Your task to perform on an android device: set default search engine in the chrome app Image 0: 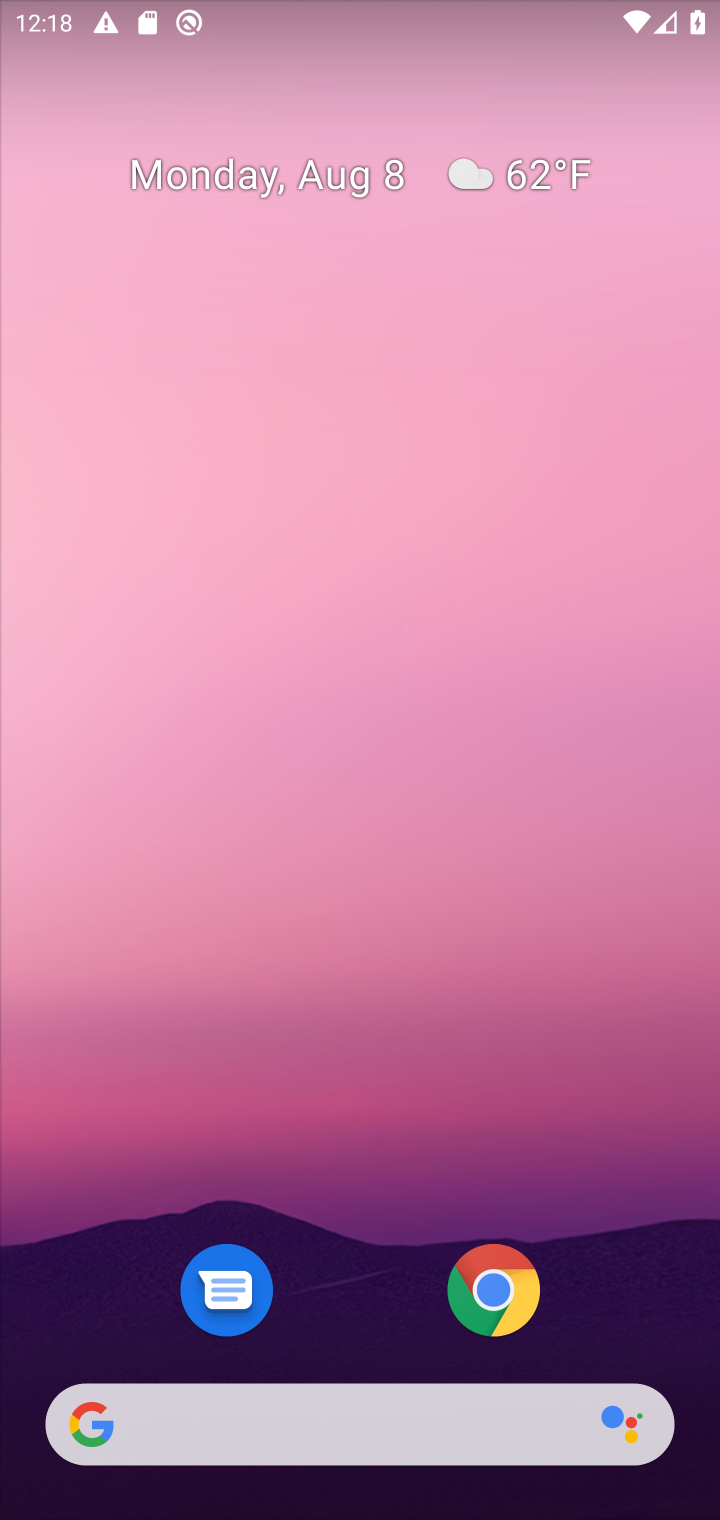
Step 0: drag from (352, 1340) to (348, 683)
Your task to perform on an android device: set default search engine in the chrome app Image 1: 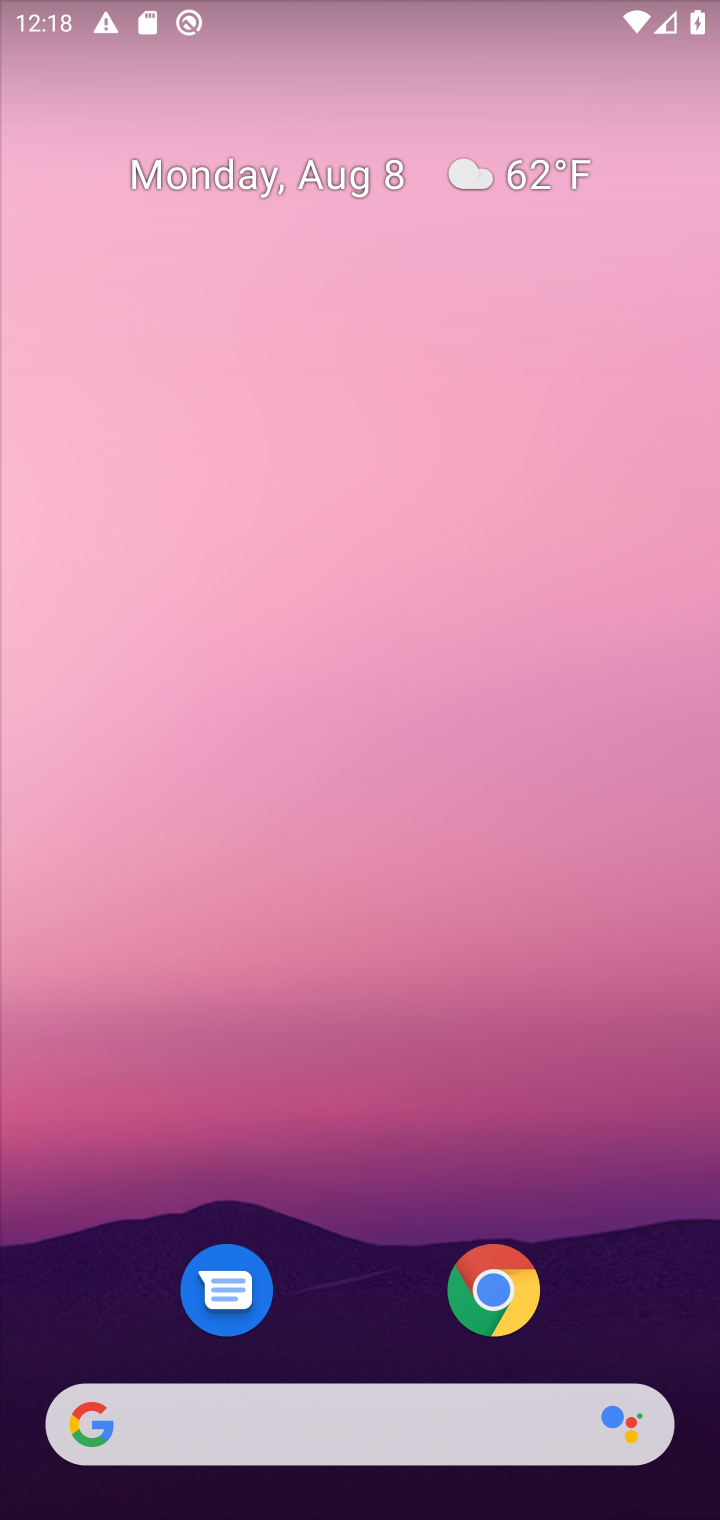
Step 1: drag from (384, 1293) to (396, 221)
Your task to perform on an android device: set default search engine in the chrome app Image 2: 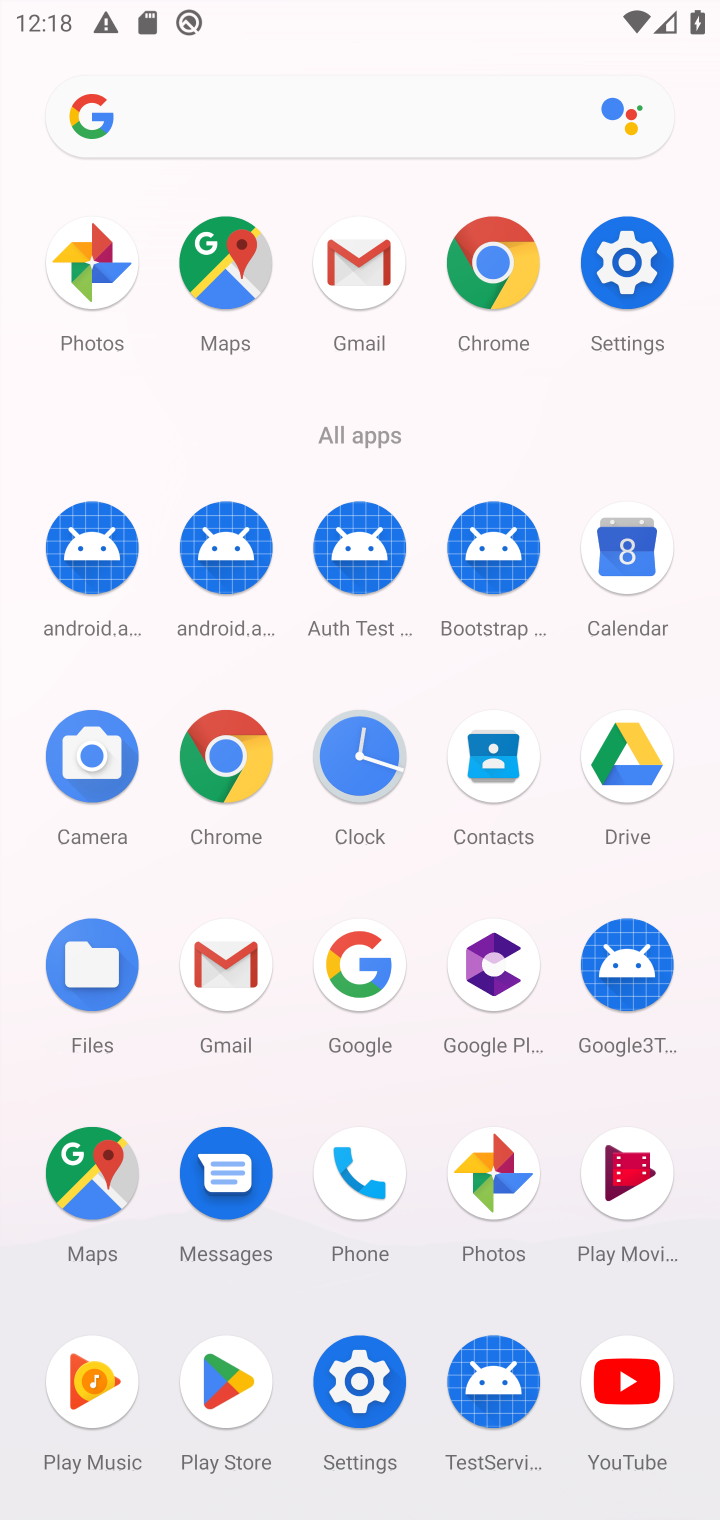
Step 2: click (239, 836)
Your task to perform on an android device: set default search engine in the chrome app Image 3: 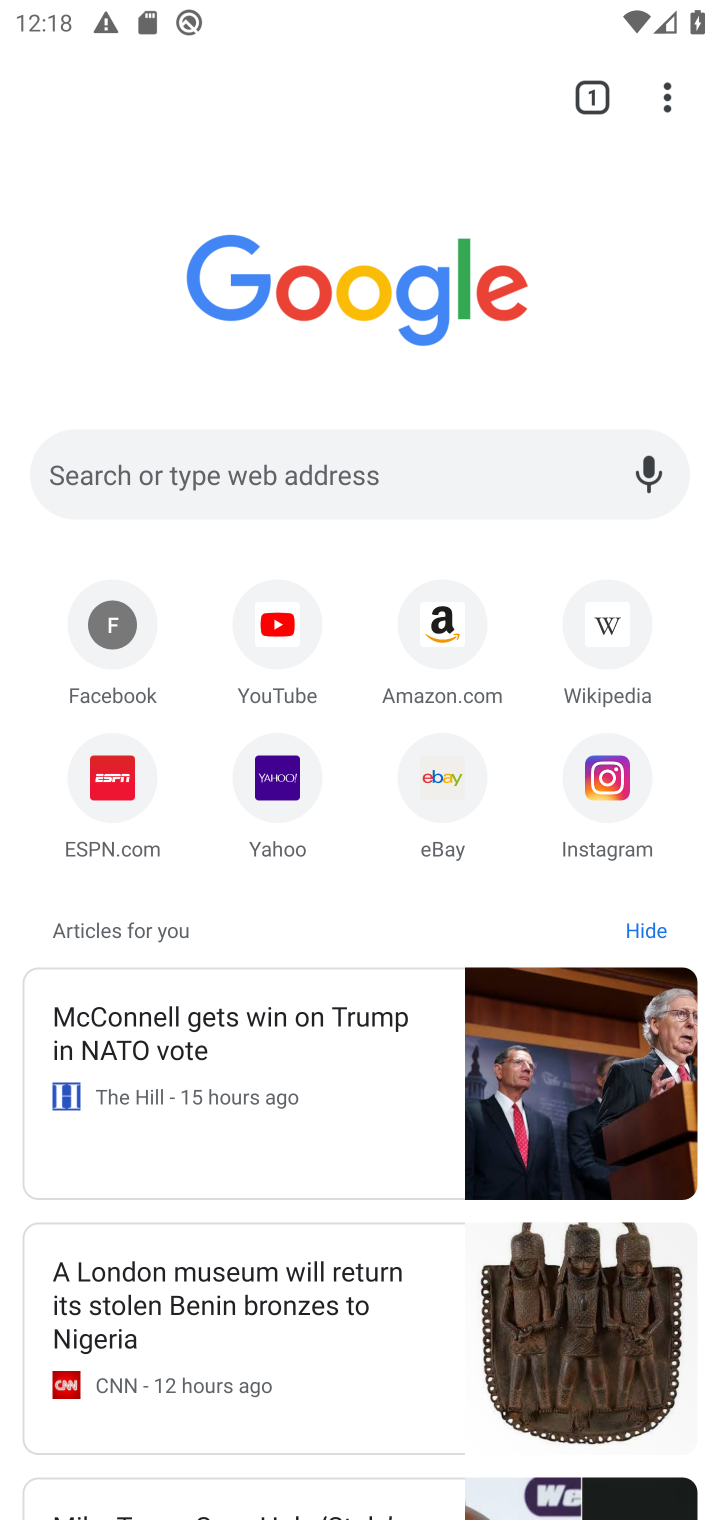
Step 3: click (670, 89)
Your task to perform on an android device: set default search engine in the chrome app Image 4: 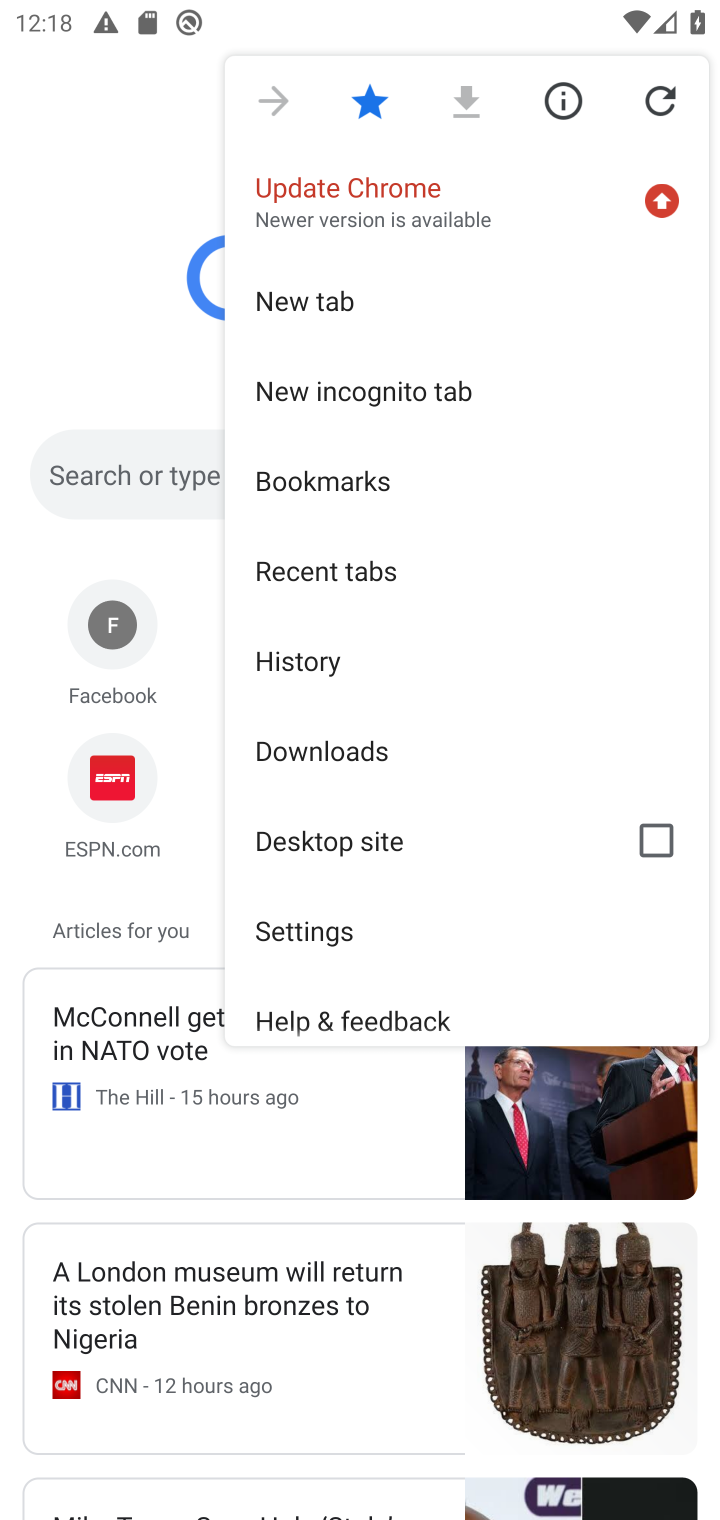
Step 4: click (335, 940)
Your task to perform on an android device: set default search engine in the chrome app Image 5: 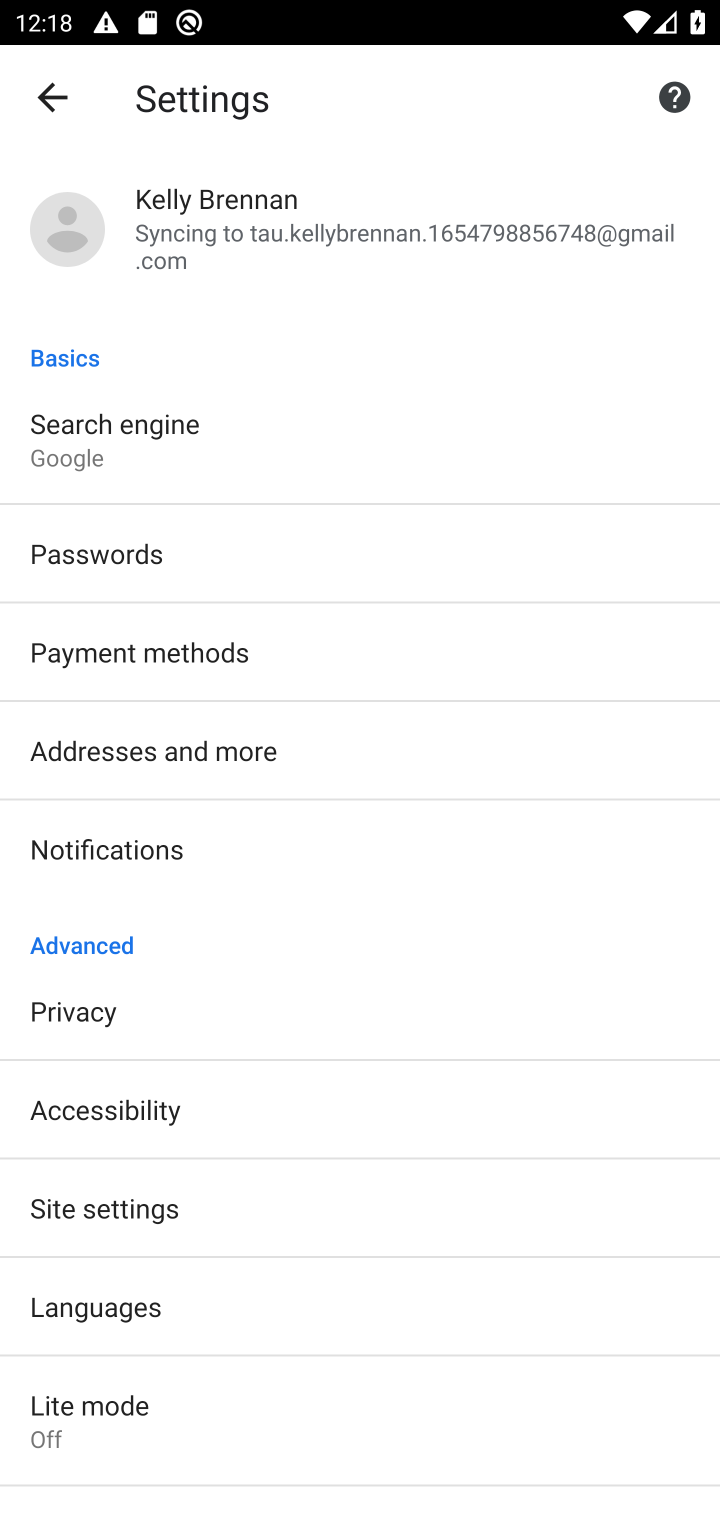
Step 5: click (173, 438)
Your task to perform on an android device: set default search engine in the chrome app Image 6: 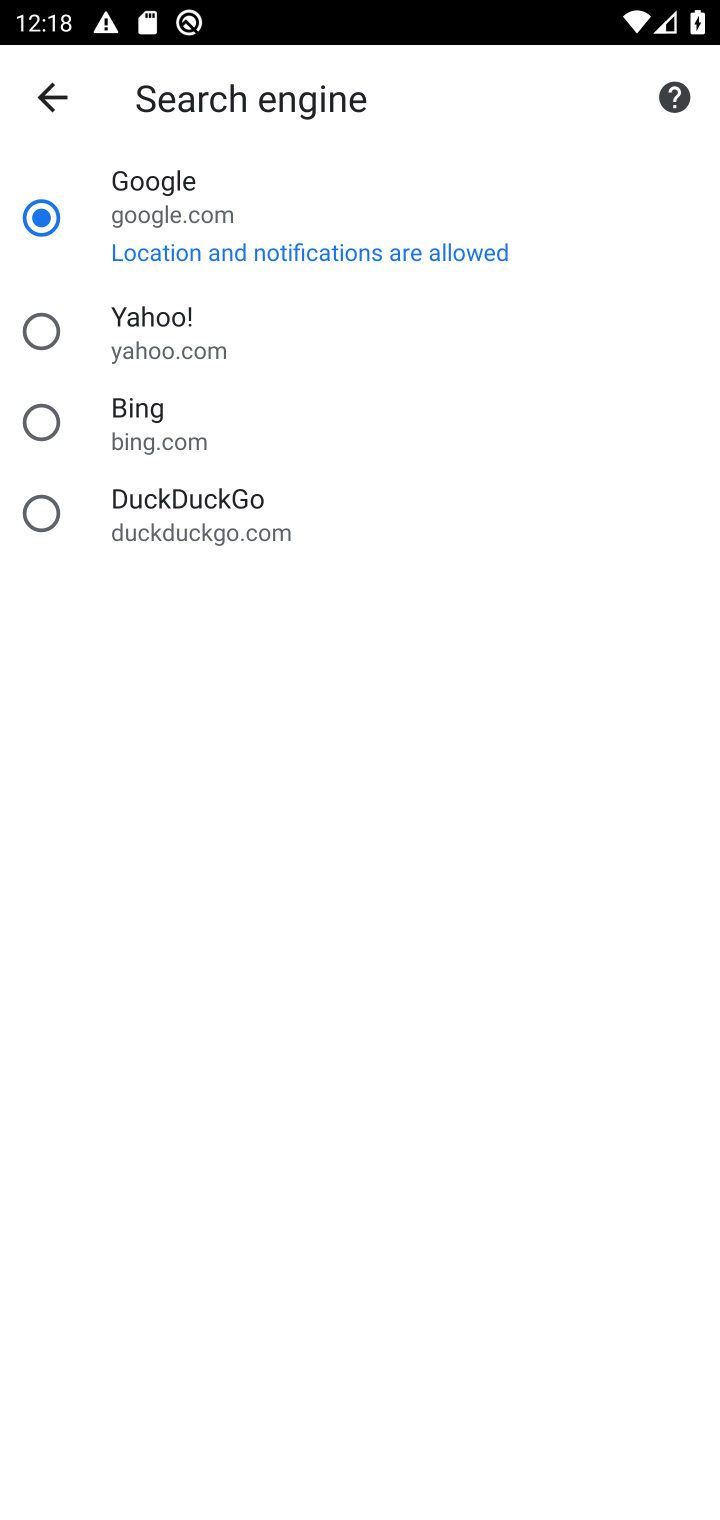
Step 6: task complete